Your task to perform on an android device: choose inbox layout in the gmail app Image 0: 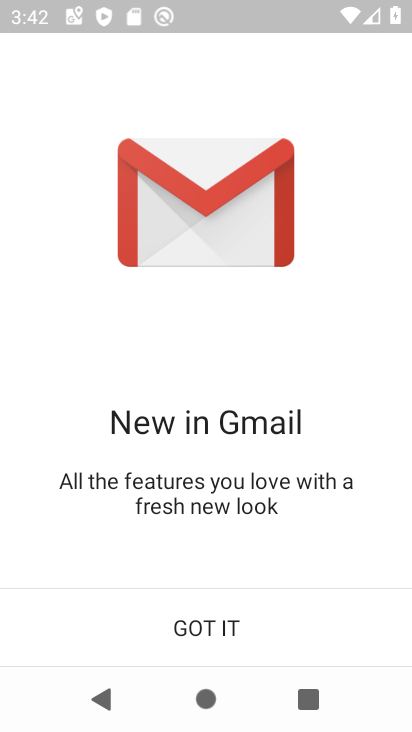
Step 0: click (223, 609)
Your task to perform on an android device: choose inbox layout in the gmail app Image 1: 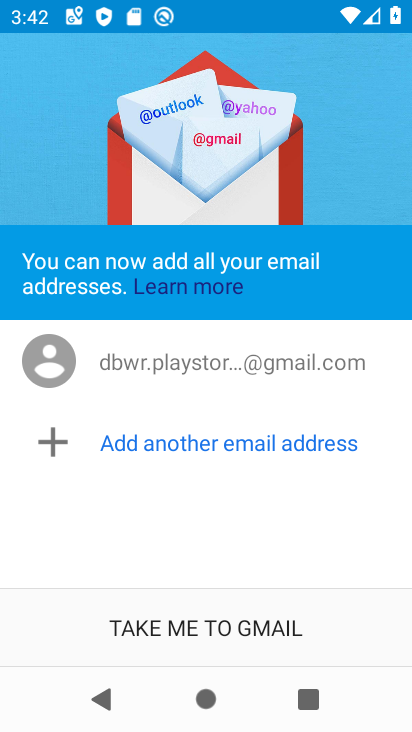
Step 1: click (228, 618)
Your task to perform on an android device: choose inbox layout in the gmail app Image 2: 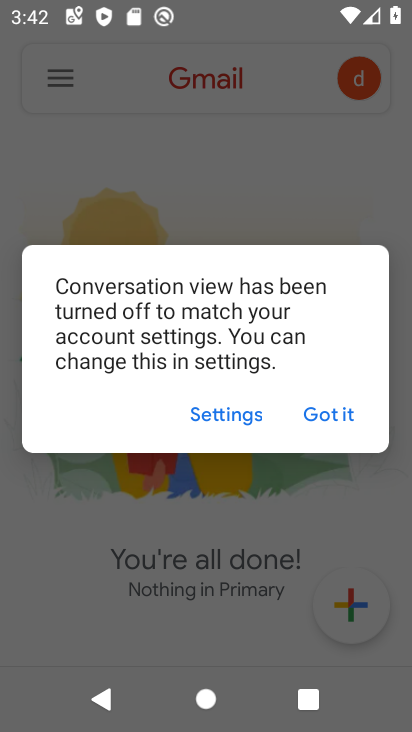
Step 2: click (336, 415)
Your task to perform on an android device: choose inbox layout in the gmail app Image 3: 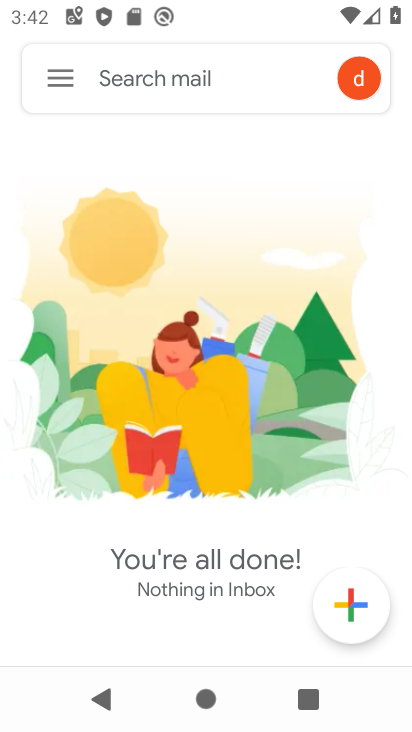
Step 3: click (60, 83)
Your task to perform on an android device: choose inbox layout in the gmail app Image 4: 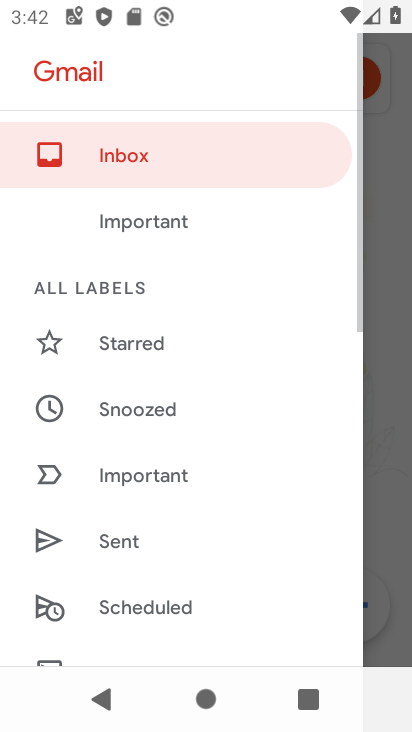
Step 4: drag from (119, 543) to (147, 144)
Your task to perform on an android device: choose inbox layout in the gmail app Image 5: 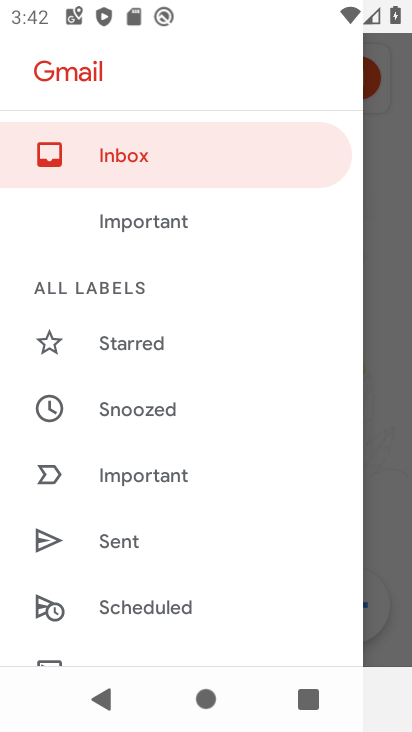
Step 5: drag from (159, 591) to (150, 176)
Your task to perform on an android device: choose inbox layout in the gmail app Image 6: 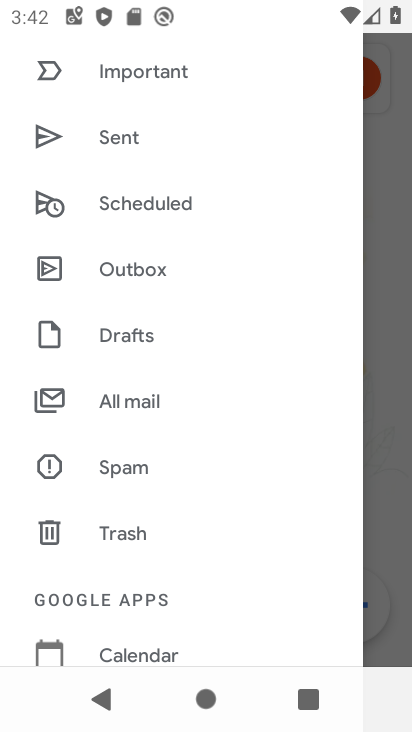
Step 6: drag from (122, 627) to (74, 177)
Your task to perform on an android device: choose inbox layout in the gmail app Image 7: 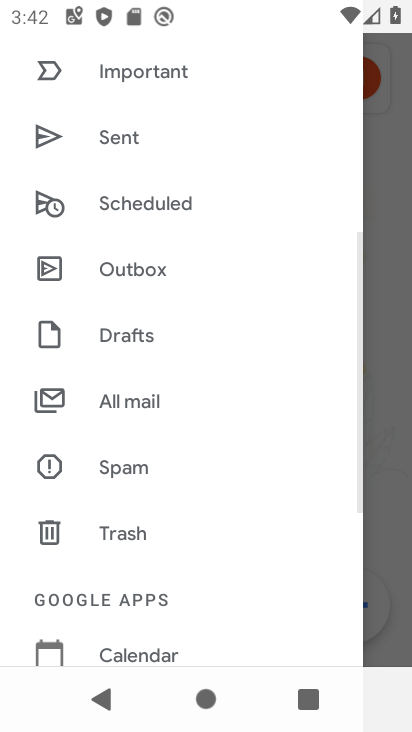
Step 7: drag from (150, 622) to (178, 226)
Your task to perform on an android device: choose inbox layout in the gmail app Image 8: 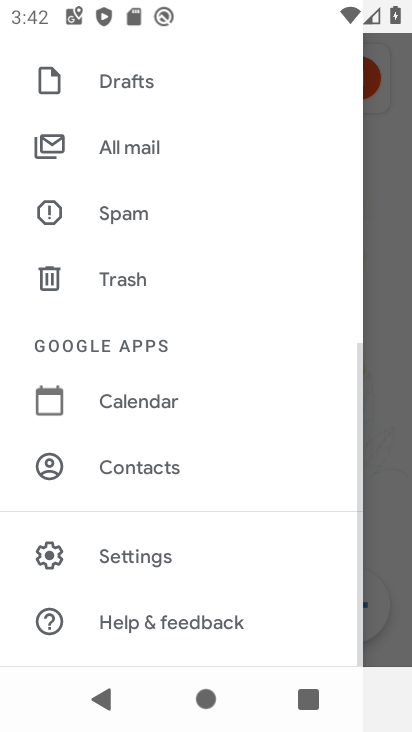
Step 8: click (135, 560)
Your task to perform on an android device: choose inbox layout in the gmail app Image 9: 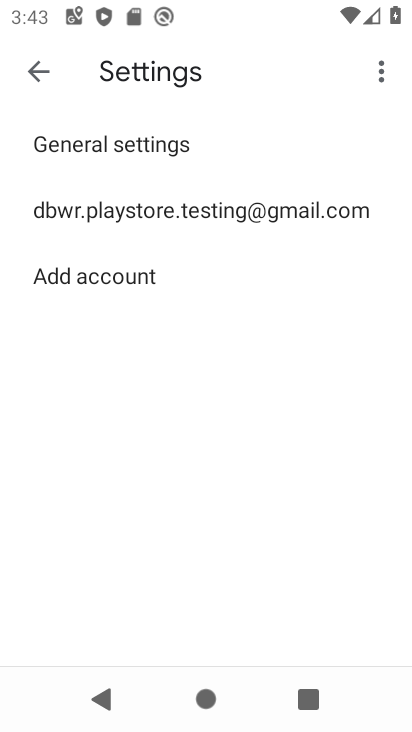
Step 9: click (105, 202)
Your task to perform on an android device: choose inbox layout in the gmail app Image 10: 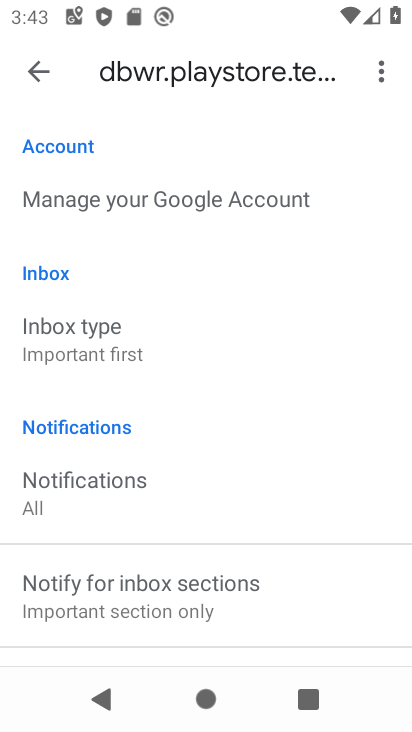
Step 10: click (83, 354)
Your task to perform on an android device: choose inbox layout in the gmail app Image 11: 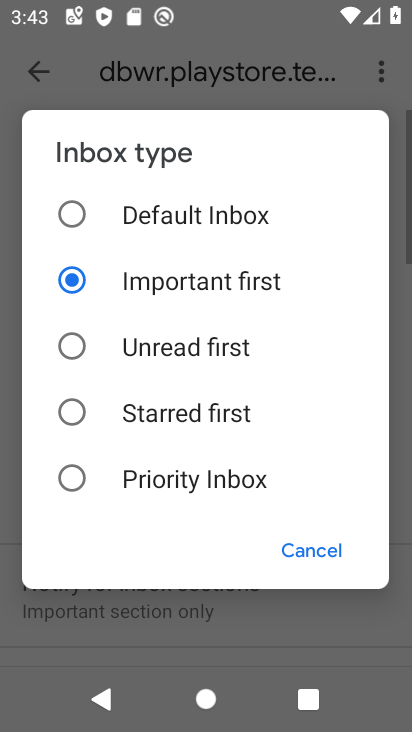
Step 11: click (83, 354)
Your task to perform on an android device: choose inbox layout in the gmail app Image 12: 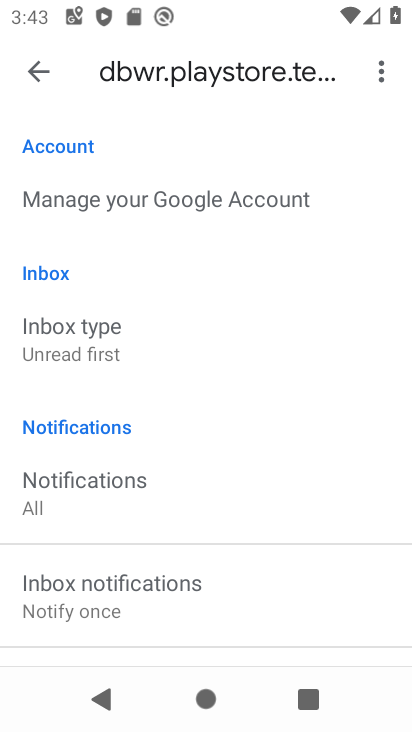
Step 12: task complete